Your task to perform on an android device: Open Reddit.com Image 0: 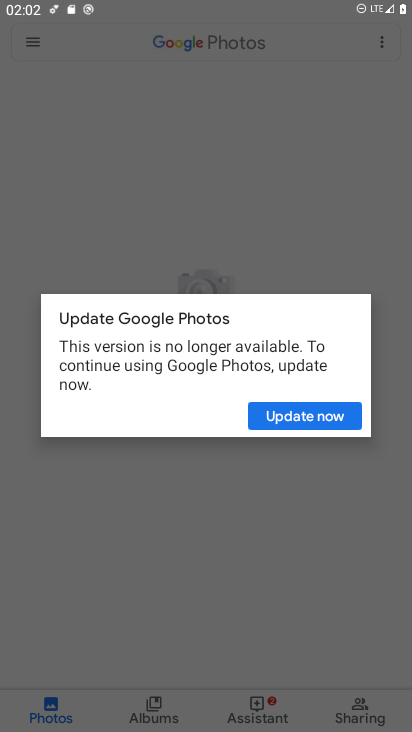
Step 0: press home button
Your task to perform on an android device: Open Reddit.com Image 1: 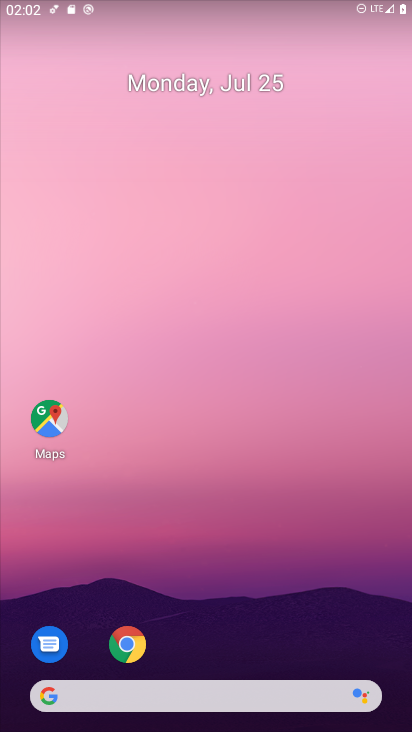
Step 1: drag from (226, 672) to (197, 138)
Your task to perform on an android device: Open Reddit.com Image 2: 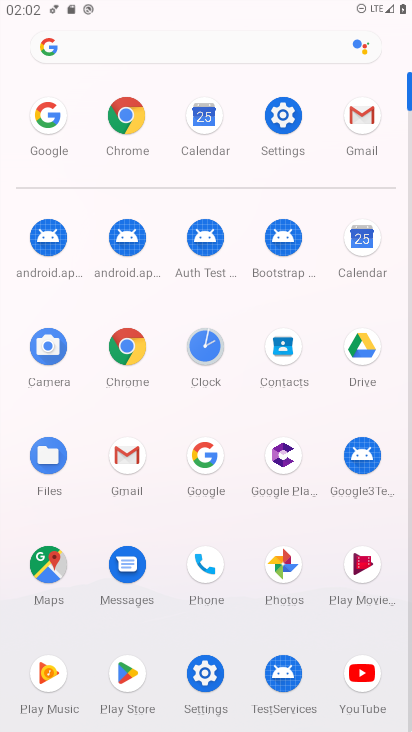
Step 2: click (123, 110)
Your task to perform on an android device: Open Reddit.com Image 3: 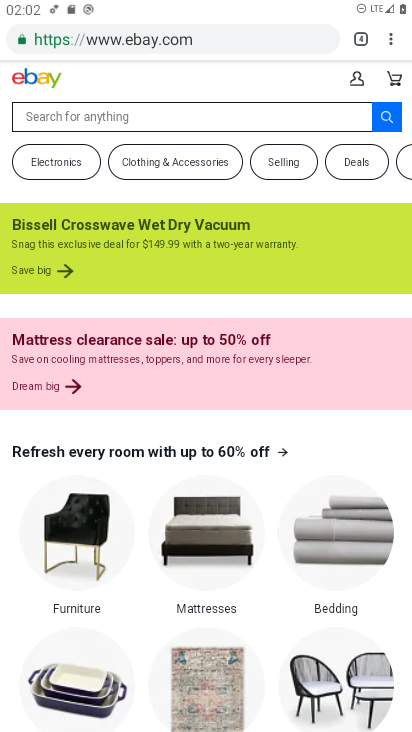
Step 3: click (393, 45)
Your task to perform on an android device: Open Reddit.com Image 4: 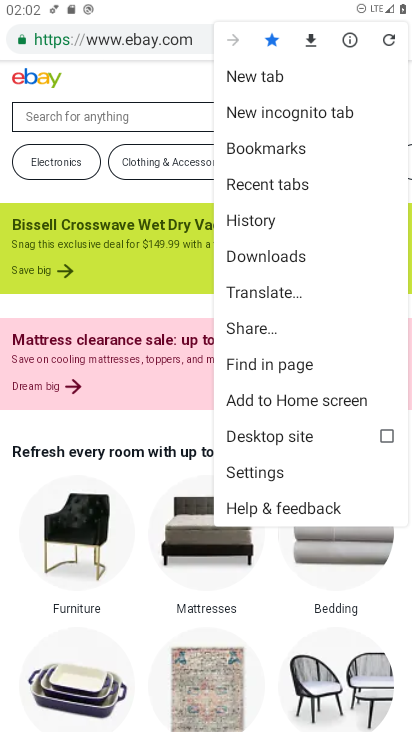
Step 4: click (264, 75)
Your task to perform on an android device: Open Reddit.com Image 5: 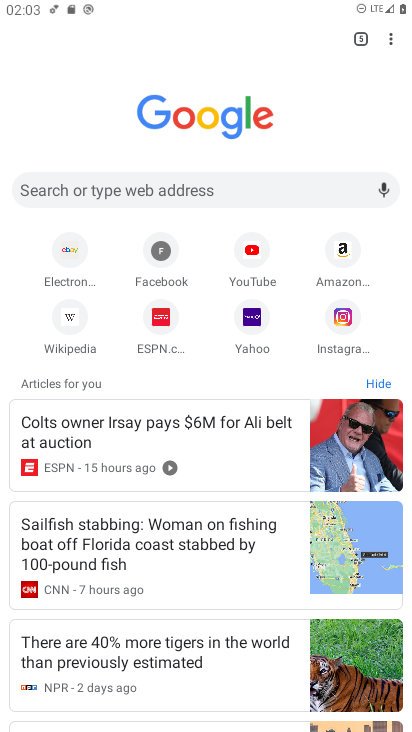
Step 5: click (201, 184)
Your task to perform on an android device: Open Reddit.com Image 6: 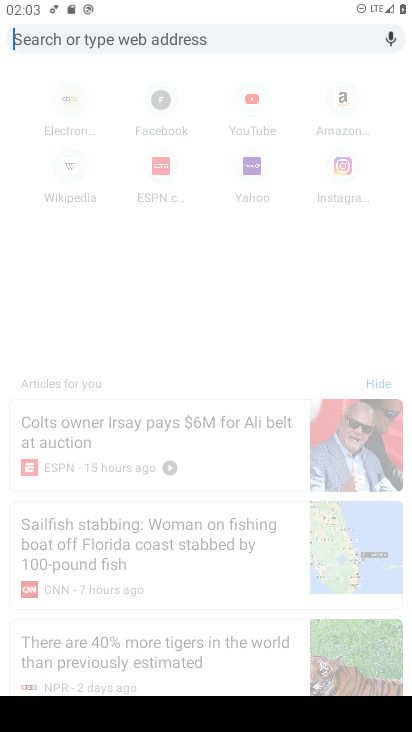
Step 6: type "Reddit.com"
Your task to perform on an android device: Open Reddit.com Image 7: 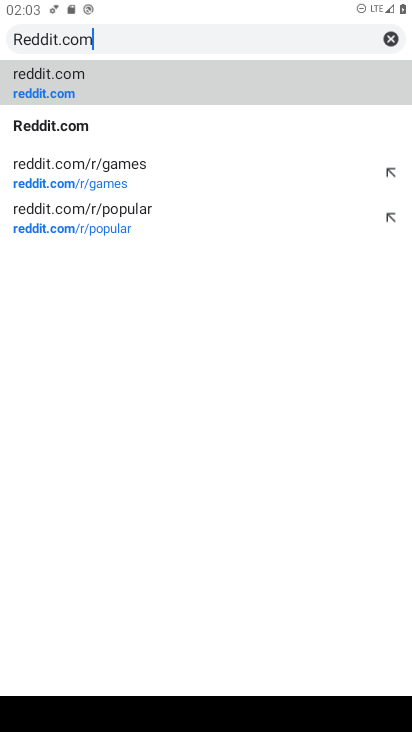
Step 7: type ""
Your task to perform on an android device: Open Reddit.com Image 8: 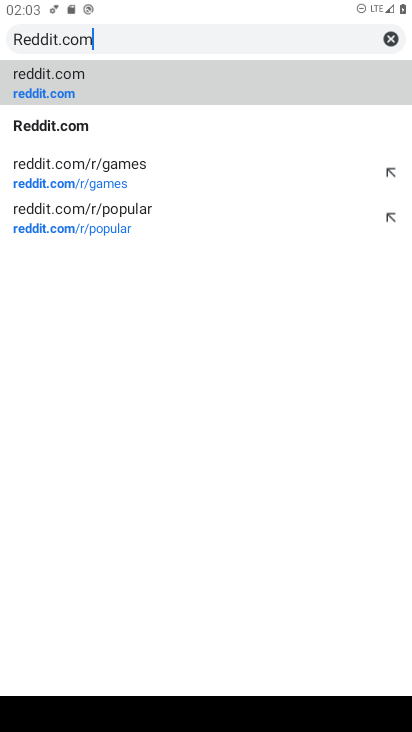
Step 8: click (37, 85)
Your task to perform on an android device: Open Reddit.com Image 9: 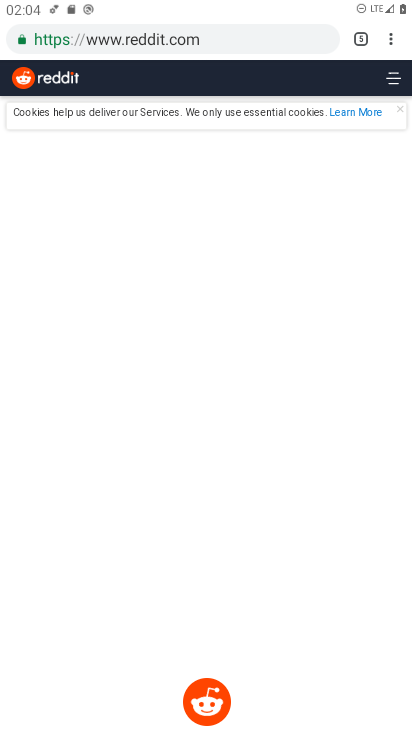
Step 9: task complete